Your task to perform on an android device: Show me popular videos on Youtube Image 0: 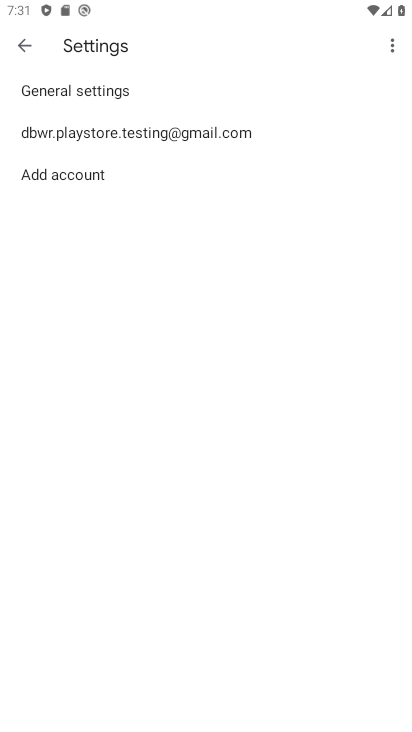
Step 0: press home button
Your task to perform on an android device: Show me popular videos on Youtube Image 1: 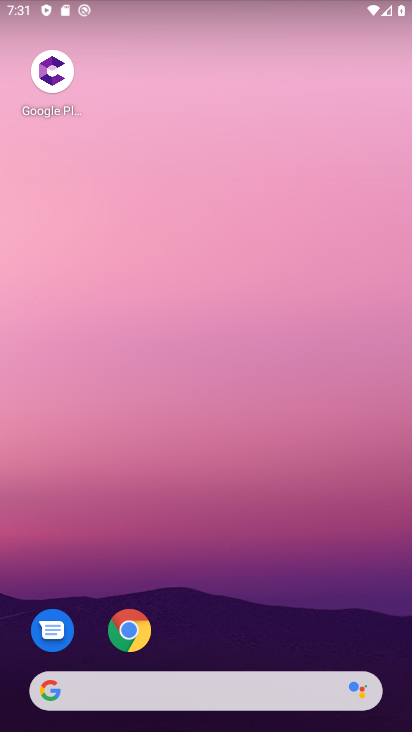
Step 1: drag from (130, 731) to (171, 112)
Your task to perform on an android device: Show me popular videos on Youtube Image 2: 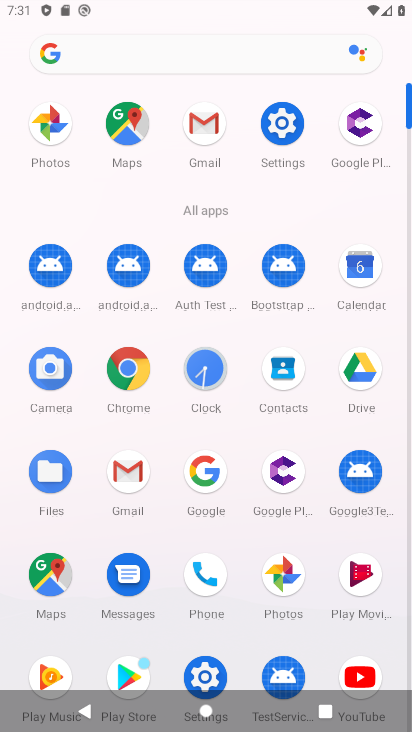
Step 2: click (345, 675)
Your task to perform on an android device: Show me popular videos on Youtube Image 3: 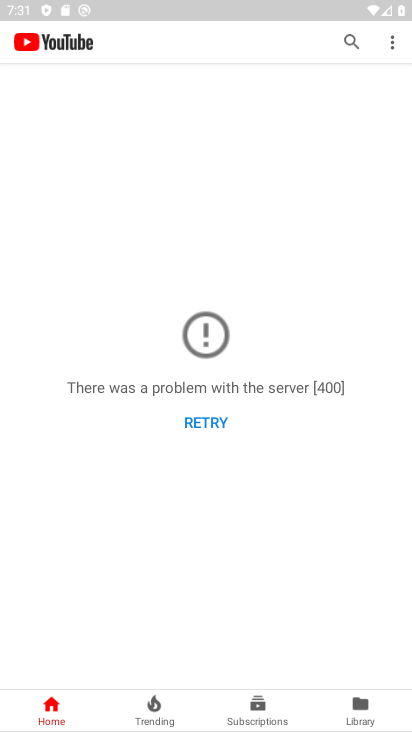
Step 3: click (170, 719)
Your task to perform on an android device: Show me popular videos on Youtube Image 4: 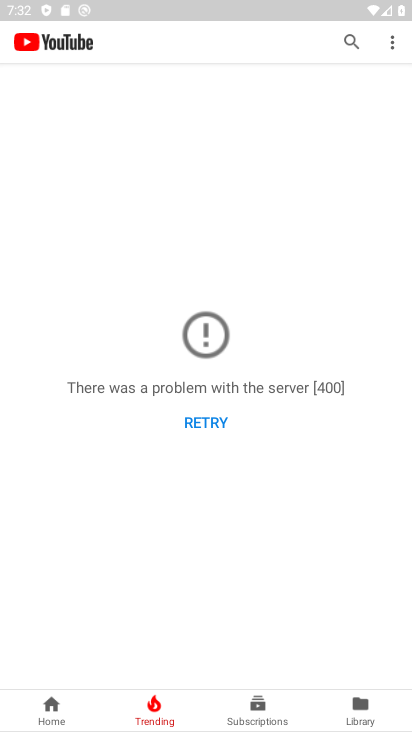
Step 4: task complete